Your task to perform on an android device: Show me the alarms in the clock app Image 0: 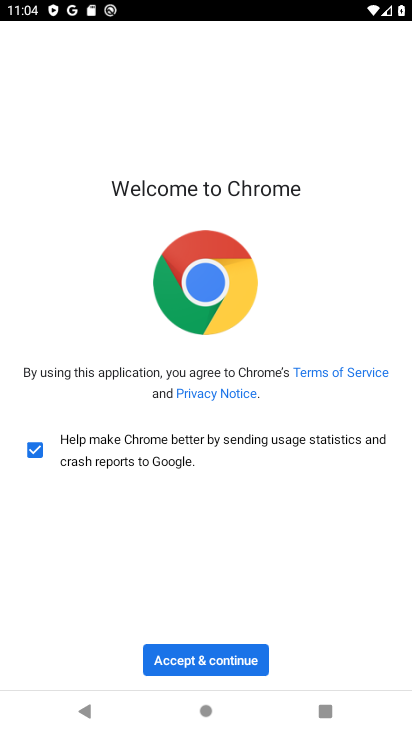
Step 0: press home button
Your task to perform on an android device: Show me the alarms in the clock app Image 1: 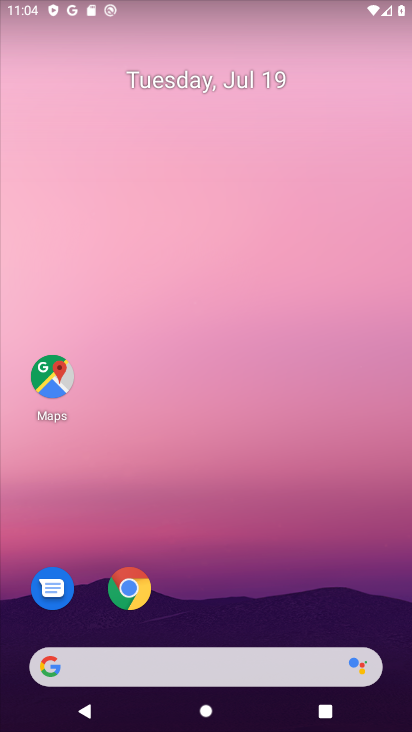
Step 1: drag from (248, 728) to (249, 131)
Your task to perform on an android device: Show me the alarms in the clock app Image 2: 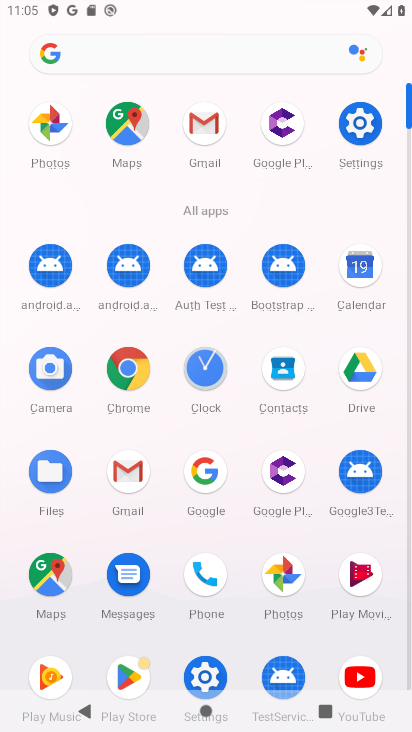
Step 2: click (200, 368)
Your task to perform on an android device: Show me the alarms in the clock app Image 3: 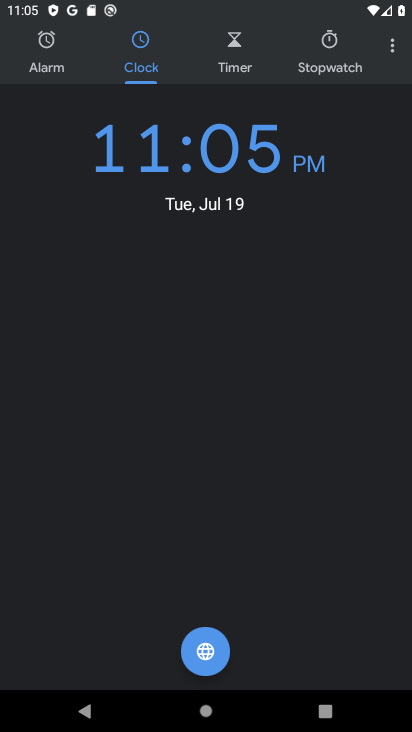
Step 3: click (41, 54)
Your task to perform on an android device: Show me the alarms in the clock app Image 4: 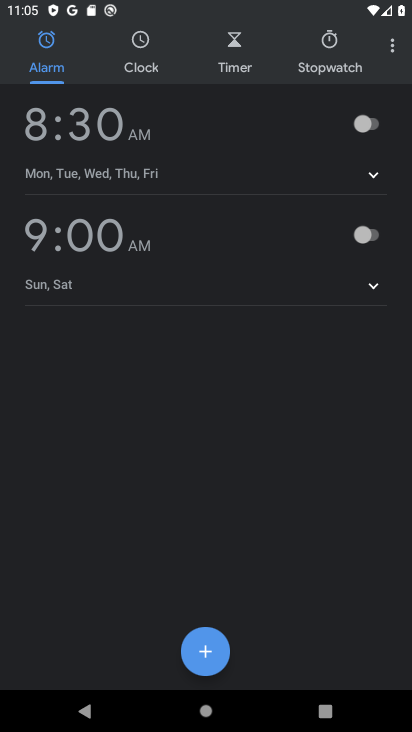
Step 4: task complete